Your task to perform on an android device: turn on showing notifications on the lock screen Image 0: 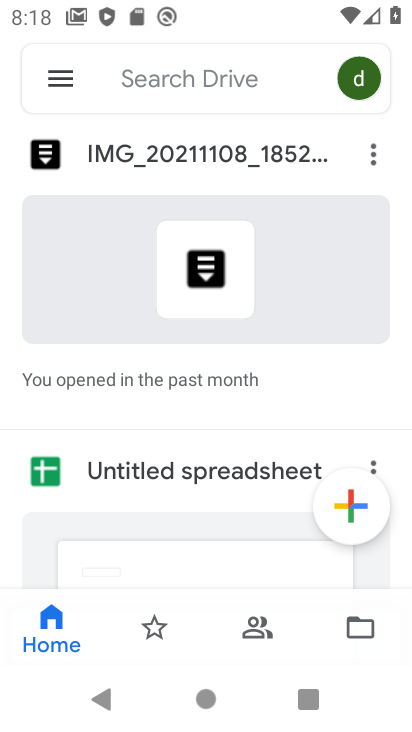
Step 0: press home button
Your task to perform on an android device: turn on showing notifications on the lock screen Image 1: 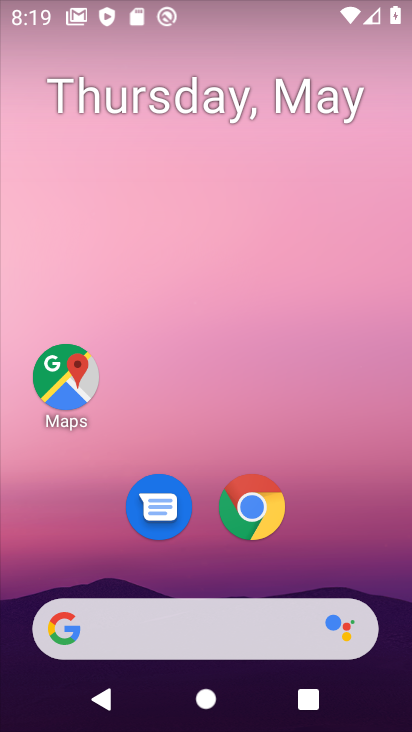
Step 1: drag from (230, 622) to (254, 101)
Your task to perform on an android device: turn on showing notifications on the lock screen Image 2: 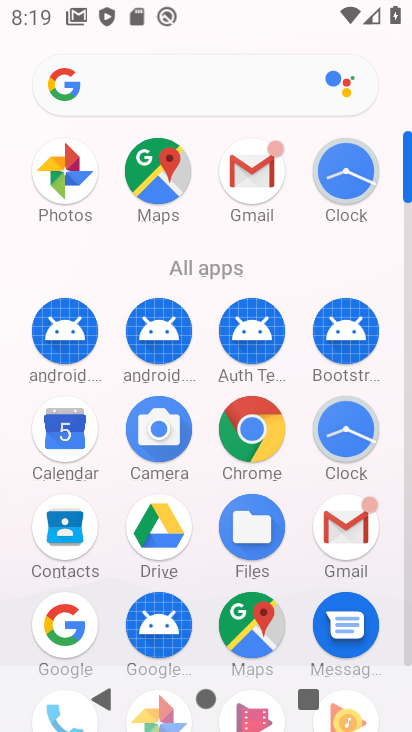
Step 2: drag from (319, 535) to (322, 108)
Your task to perform on an android device: turn on showing notifications on the lock screen Image 3: 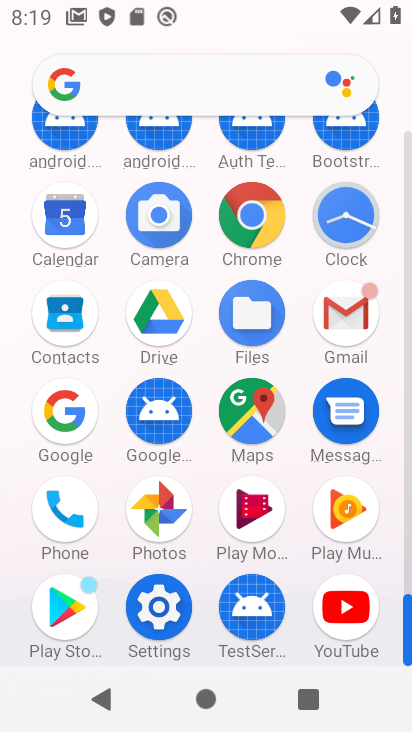
Step 3: click (170, 621)
Your task to perform on an android device: turn on showing notifications on the lock screen Image 4: 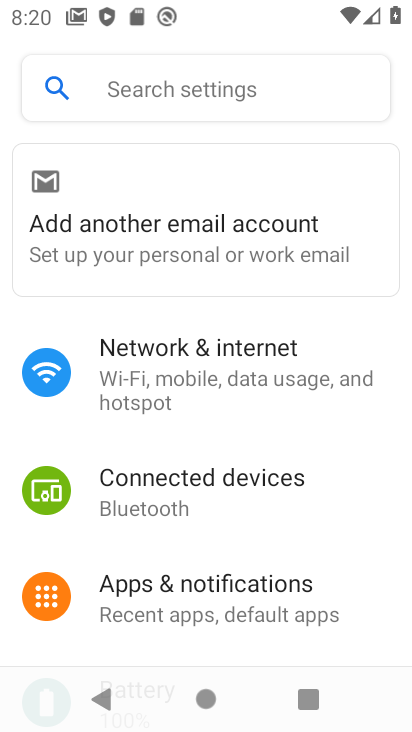
Step 4: click (247, 604)
Your task to perform on an android device: turn on showing notifications on the lock screen Image 5: 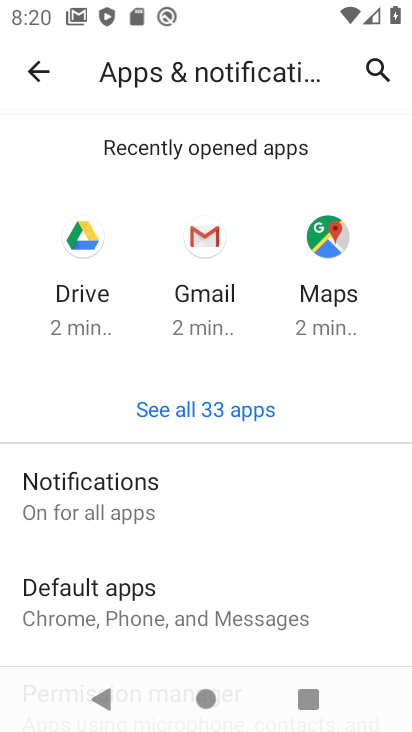
Step 5: click (145, 497)
Your task to perform on an android device: turn on showing notifications on the lock screen Image 6: 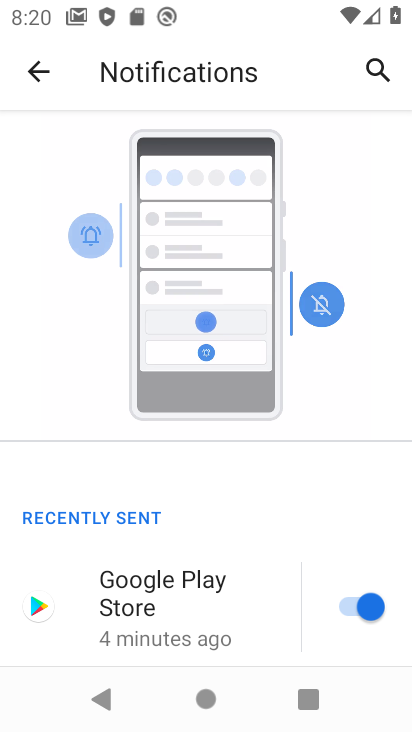
Step 6: drag from (210, 565) to (238, 93)
Your task to perform on an android device: turn on showing notifications on the lock screen Image 7: 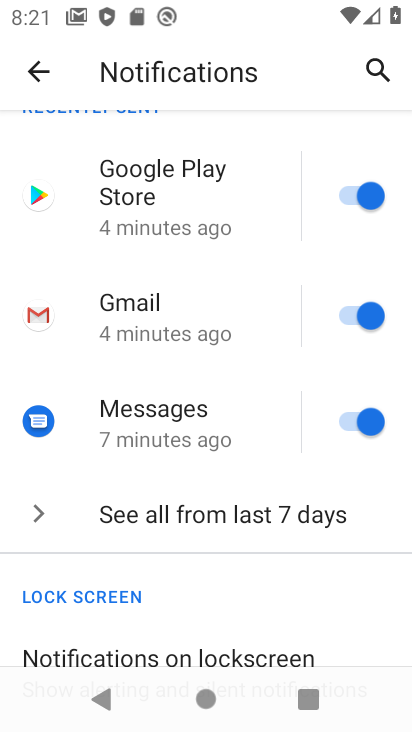
Step 7: drag from (240, 559) to (252, 244)
Your task to perform on an android device: turn on showing notifications on the lock screen Image 8: 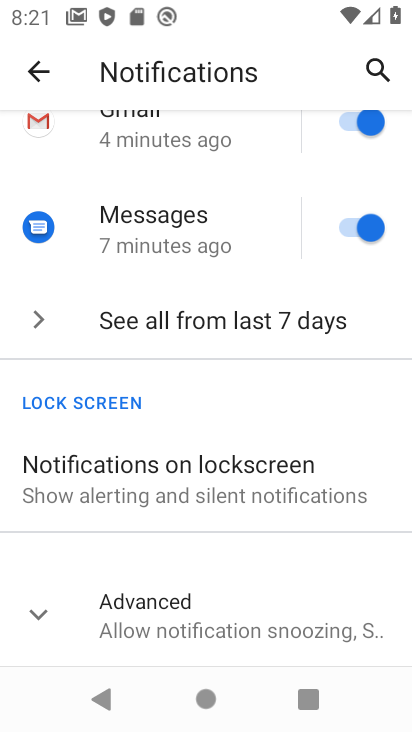
Step 8: click (278, 487)
Your task to perform on an android device: turn on showing notifications on the lock screen Image 9: 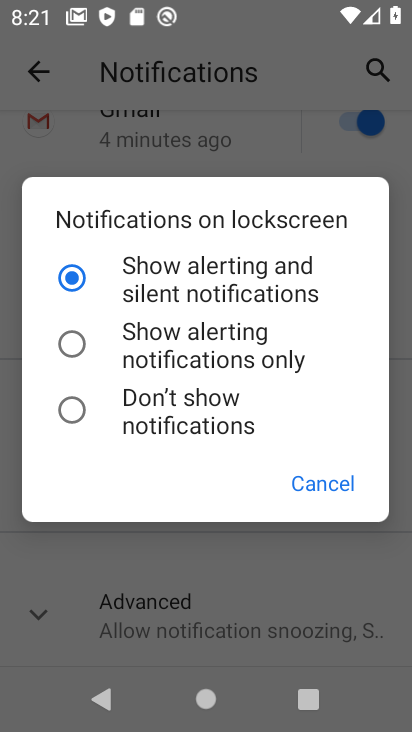
Step 9: task complete